Your task to perform on an android device: Open Android settings Image 0: 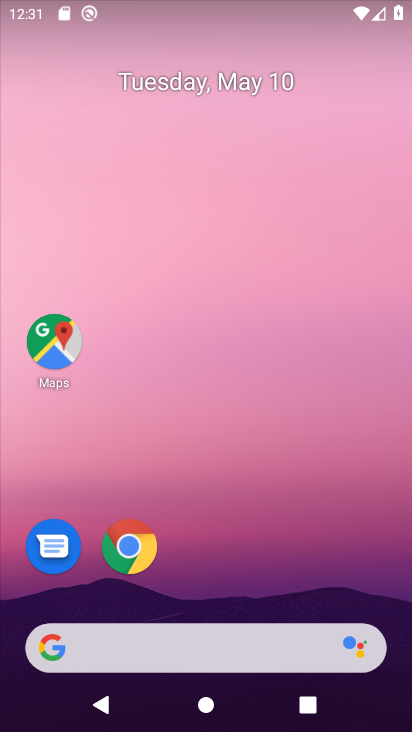
Step 0: click (355, 121)
Your task to perform on an android device: Open Android settings Image 1: 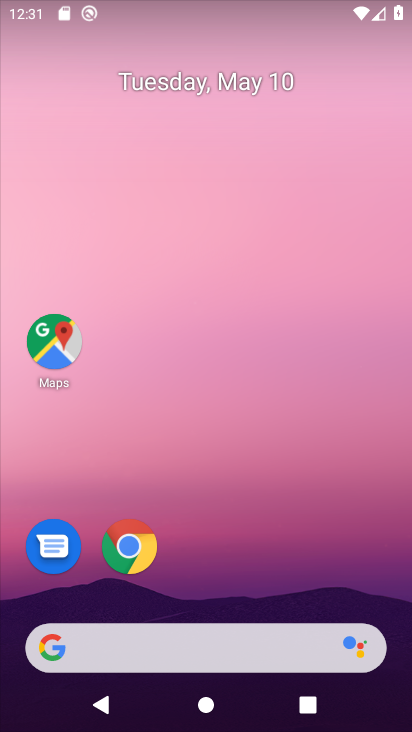
Step 1: drag from (291, 576) to (285, 63)
Your task to perform on an android device: Open Android settings Image 2: 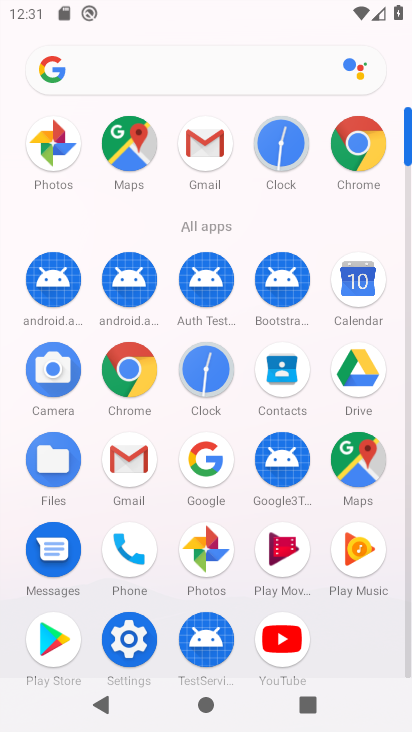
Step 2: click (138, 630)
Your task to perform on an android device: Open Android settings Image 3: 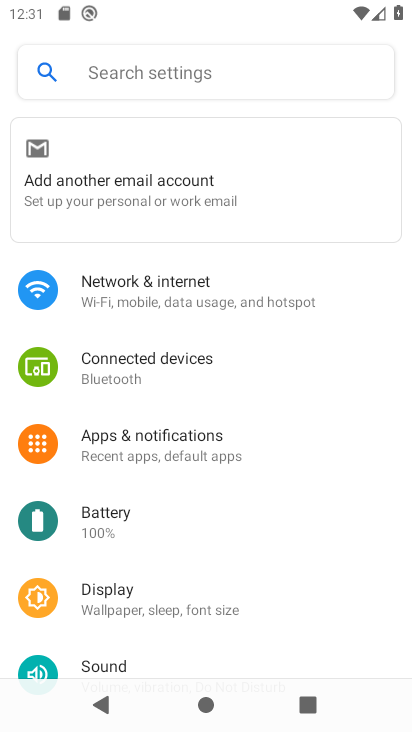
Step 3: drag from (219, 609) to (201, 120)
Your task to perform on an android device: Open Android settings Image 4: 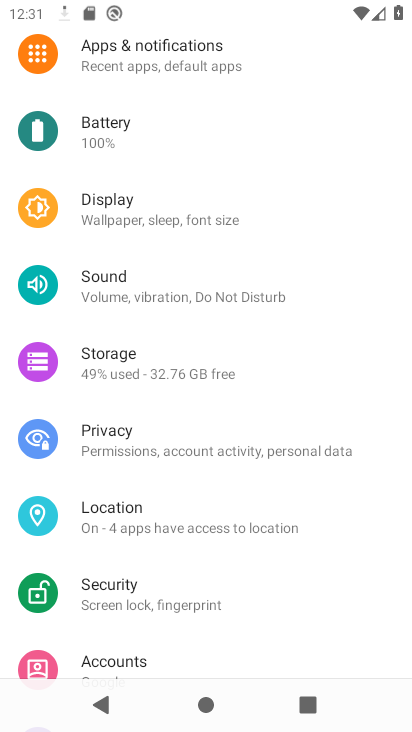
Step 4: drag from (215, 643) to (228, 165)
Your task to perform on an android device: Open Android settings Image 5: 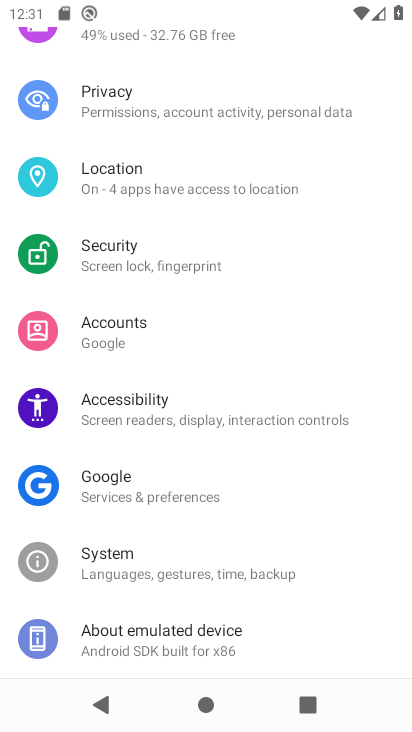
Step 5: click (141, 627)
Your task to perform on an android device: Open Android settings Image 6: 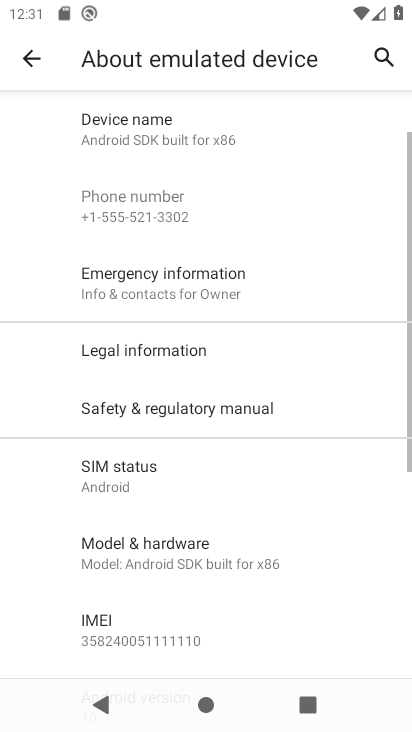
Step 6: drag from (239, 599) to (277, 215)
Your task to perform on an android device: Open Android settings Image 7: 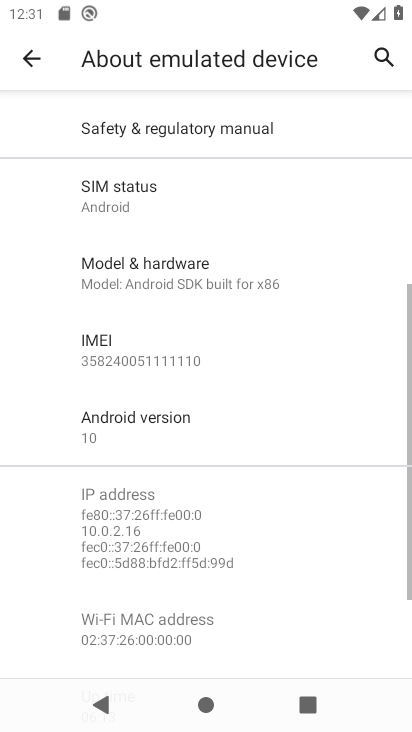
Step 7: click (152, 443)
Your task to perform on an android device: Open Android settings Image 8: 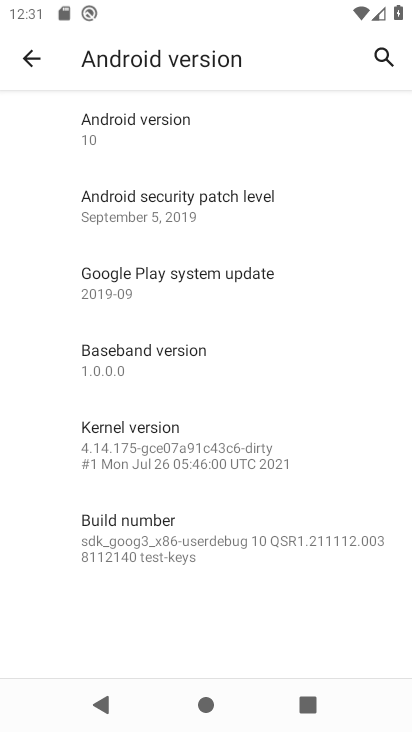
Step 8: task complete